Your task to perform on an android device: Open network settings Image 0: 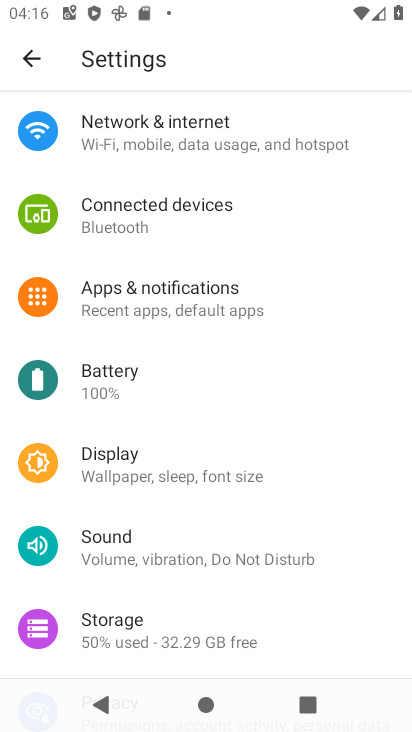
Step 0: click (224, 122)
Your task to perform on an android device: Open network settings Image 1: 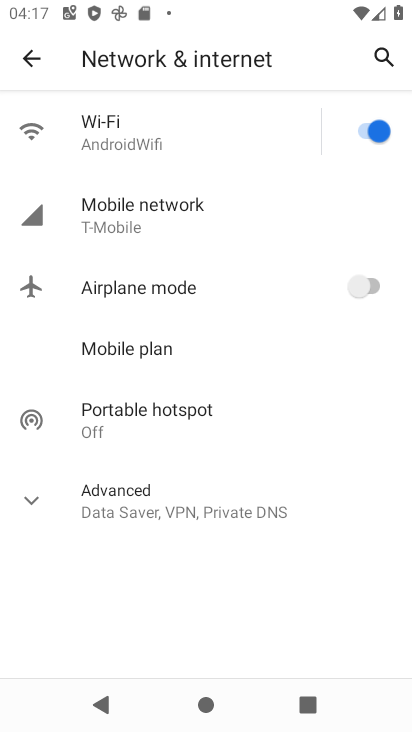
Step 1: task complete